Your task to perform on an android device: Go to Wikipedia Image 0: 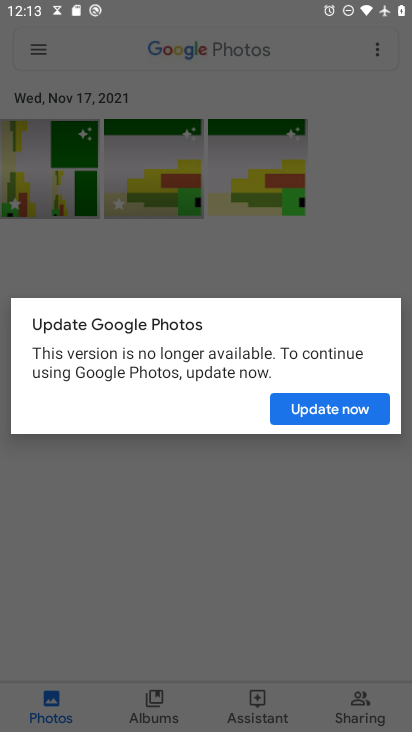
Step 0: press home button
Your task to perform on an android device: Go to Wikipedia Image 1: 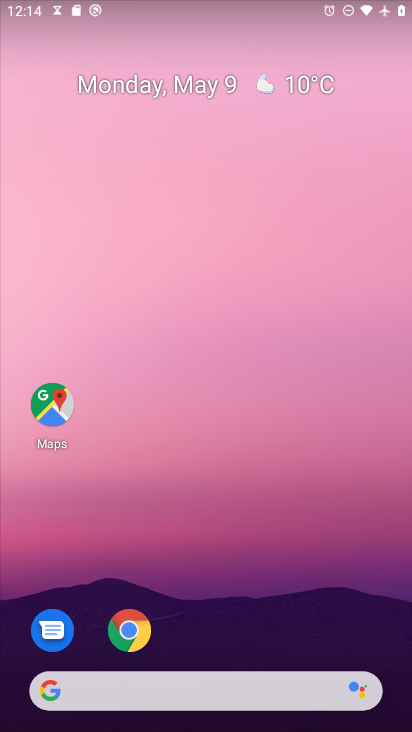
Step 1: drag from (201, 702) to (287, 243)
Your task to perform on an android device: Go to Wikipedia Image 2: 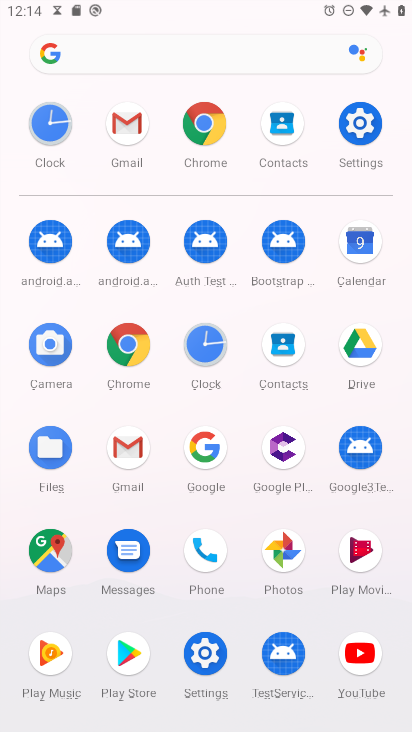
Step 2: click (213, 128)
Your task to perform on an android device: Go to Wikipedia Image 3: 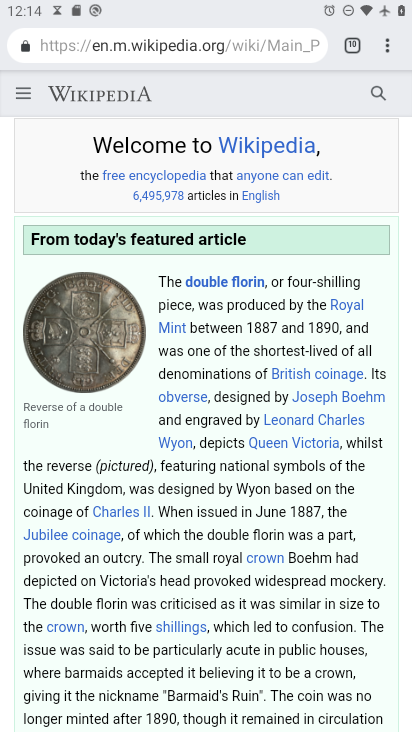
Step 3: drag from (388, 50) to (281, 86)
Your task to perform on an android device: Go to Wikipedia Image 4: 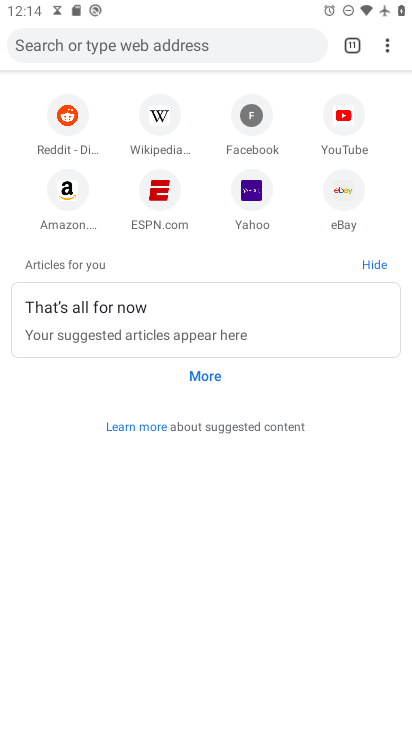
Step 4: click (168, 123)
Your task to perform on an android device: Go to Wikipedia Image 5: 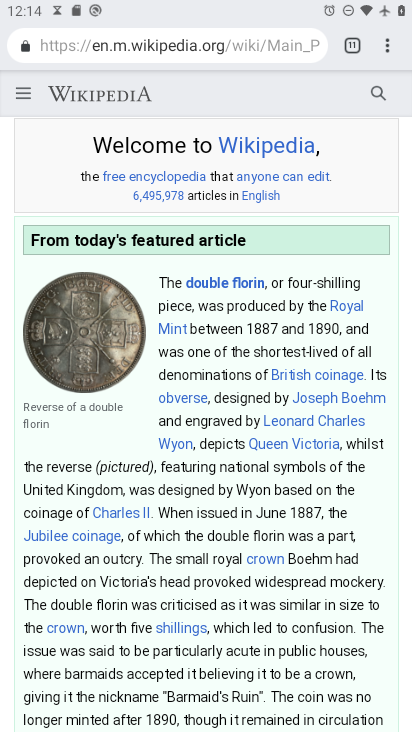
Step 5: task complete